Your task to perform on an android device: Do I have any events this weekend? Image 0: 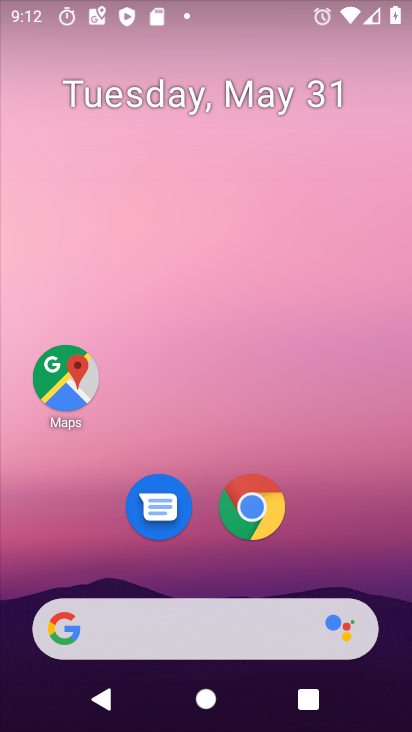
Step 0: drag from (352, 574) to (348, 0)
Your task to perform on an android device: Do I have any events this weekend? Image 1: 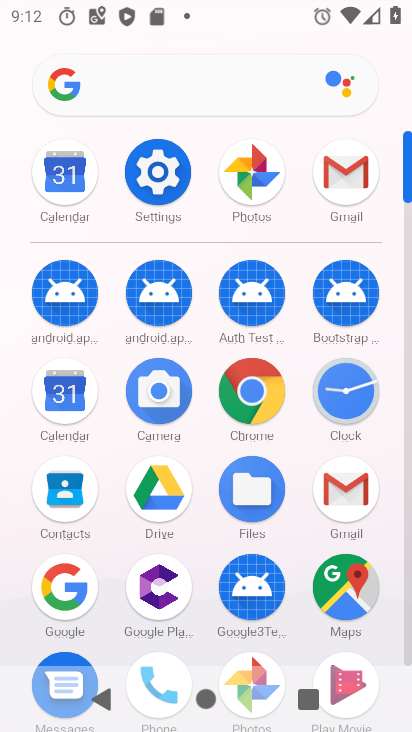
Step 1: click (50, 178)
Your task to perform on an android device: Do I have any events this weekend? Image 2: 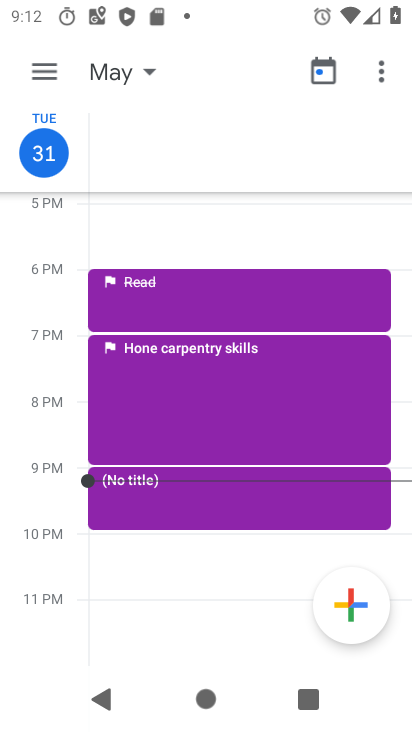
Step 2: click (42, 72)
Your task to perform on an android device: Do I have any events this weekend? Image 3: 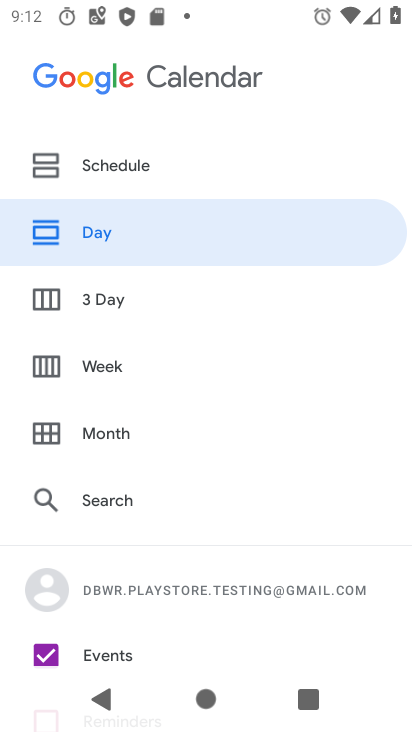
Step 3: click (85, 233)
Your task to perform on an android device: Do I have any events this weekend? Image 4: 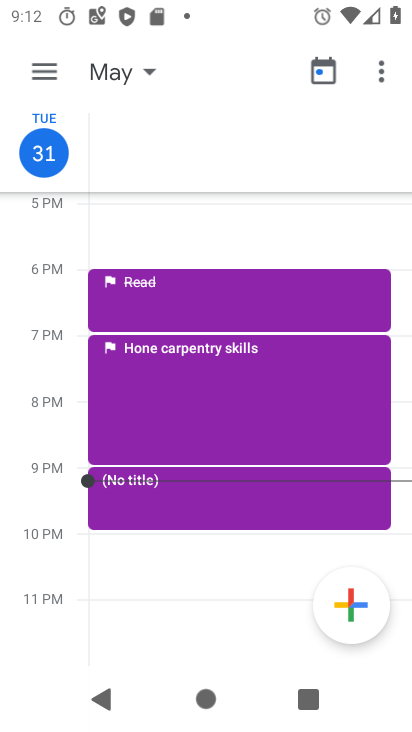
Step 4: click (149, 67)
Your task to perform on an android device: Do I have any events this weekend? Image 5: 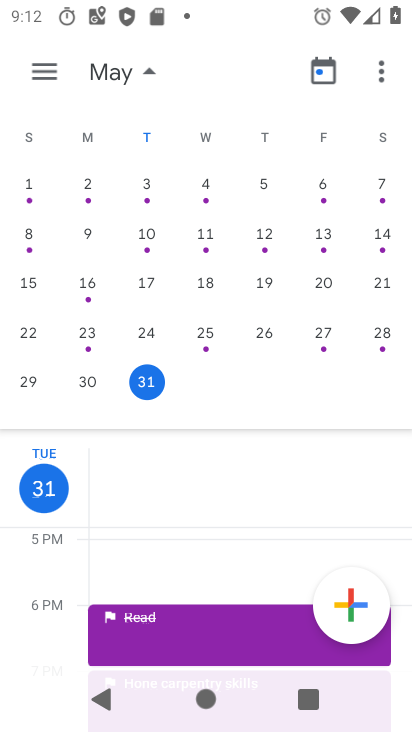
Step 5: click (377, 338)
Your task to perform on an android device: Do I have any events this weekend? Image 6: 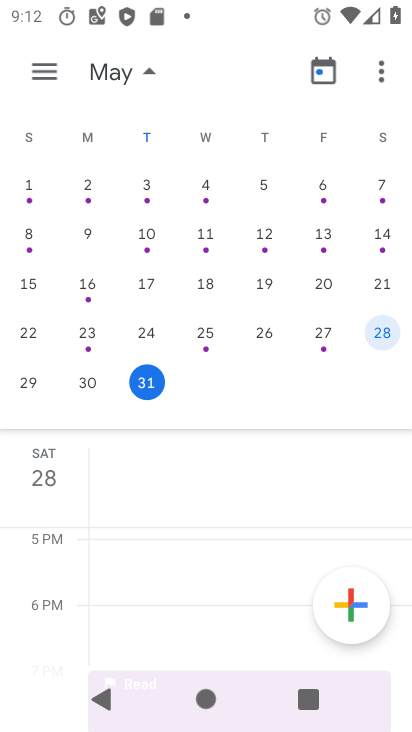
Step 6: task complete